Your task to perform on an android device: create a new album in the google photos Image 0: 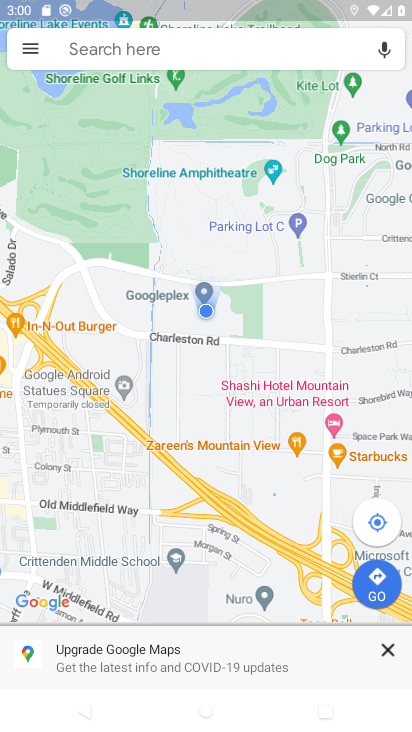
Step 0: press home button
Your task to perform on an android device: create a new album in the google photos Image 1: 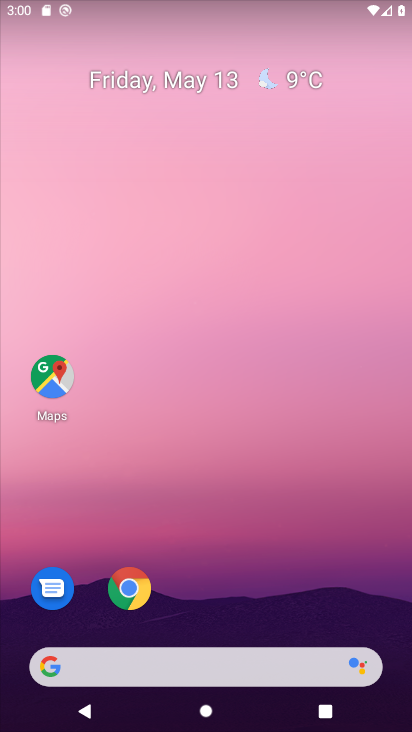
Step 1: drag from (261, 564) to (211, 78)
Your task to perform on an android device: create a new album in the google photos Image 2: 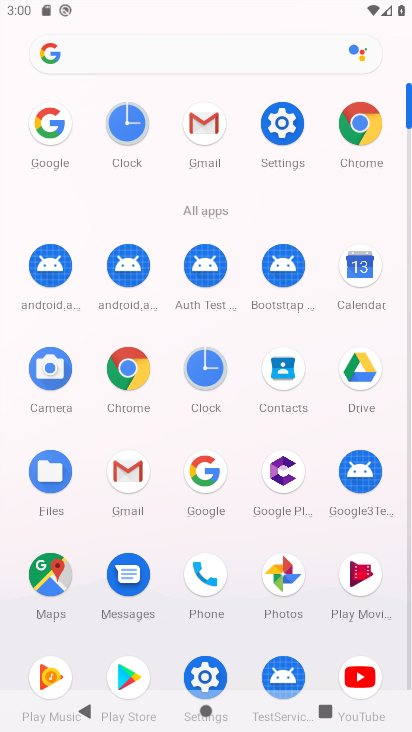
Step 2: click (286, 579)
Your task to perform on an android device: create a new album in the google photos Image 3: 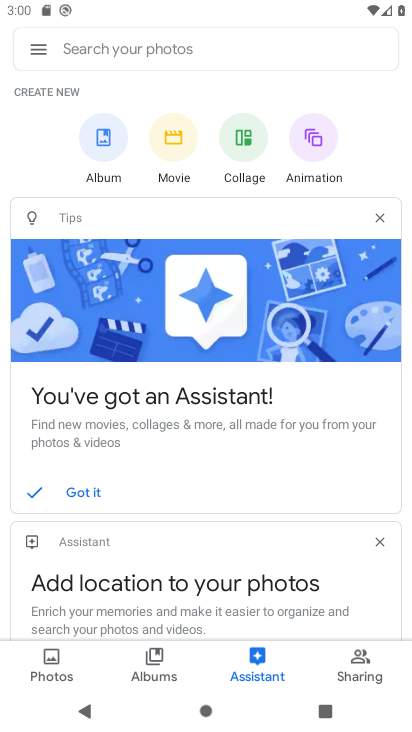
Step 3: click (54, 676)
Your task to perform on an android device: create a new album in the google photos Image 4: 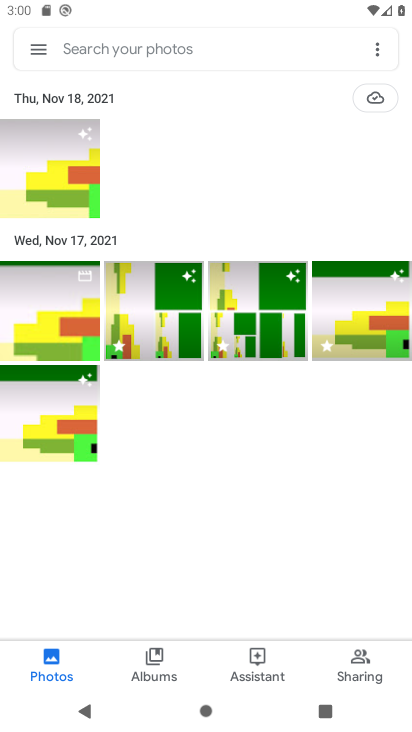
Step 4: click (76, 344)
Your task to perform on an android device: create a new album in the google photos Image 5: 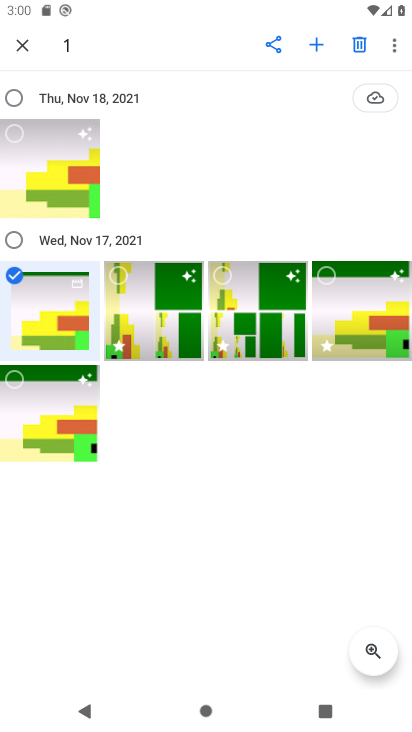
Step 5: click (37, 193)
Your task to perform on an android device: create a new album in the google photos Image 6: 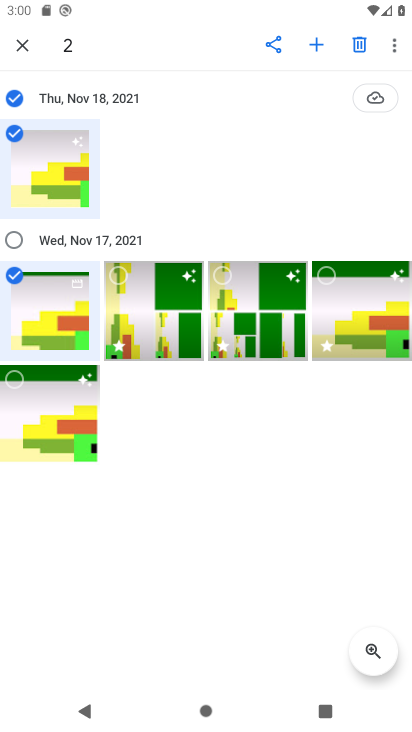
Step 6: click (150, 291)
Your task to perform on an android device: create a new album in the google photos Image 7: 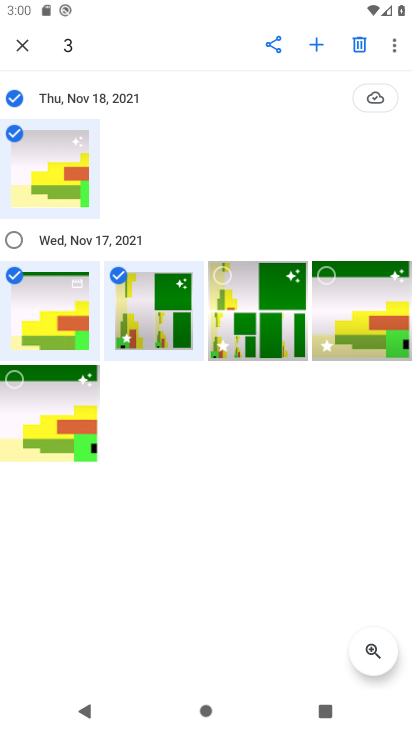
Step 7: click (313, 51)
Your task to perform on an android device: create a new album in the google photos Image 8: 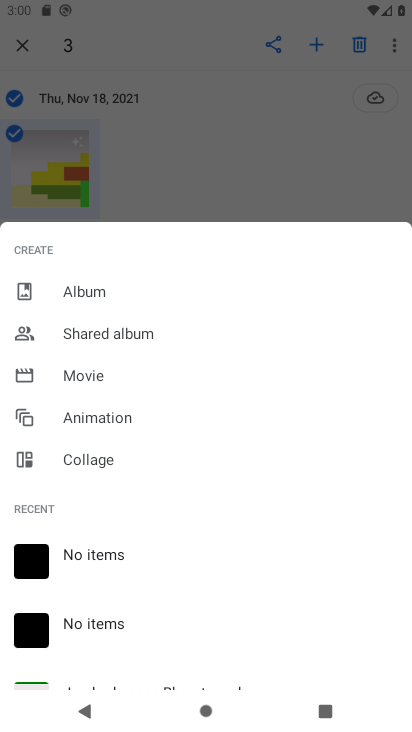
Step 8: click (87, 294)
Your task to perform on an android device: create a new album in the google photos Image 9: 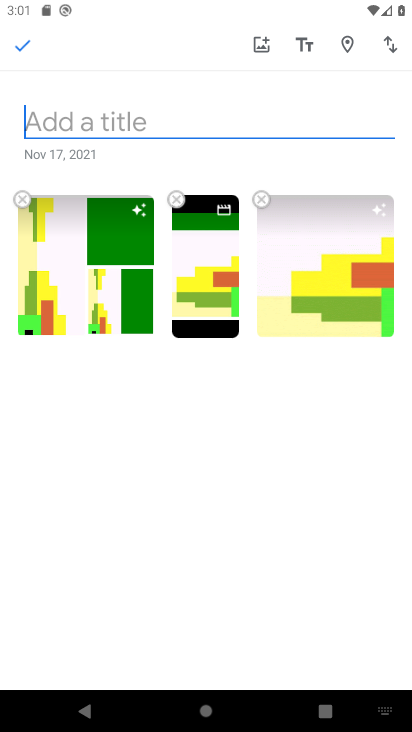
Step 9: type "plopl"
Your task to perform on an android device: create a new album in the google photos Image 10: 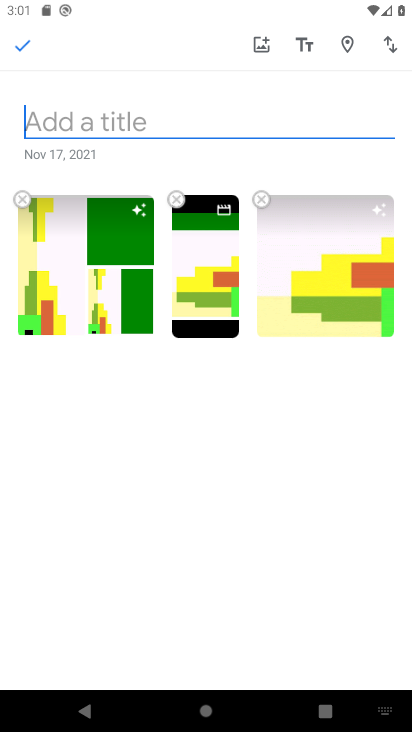
Step 10: click (21, 41)
Your task to perform on an android device: create a new album in the google photos Image 11: 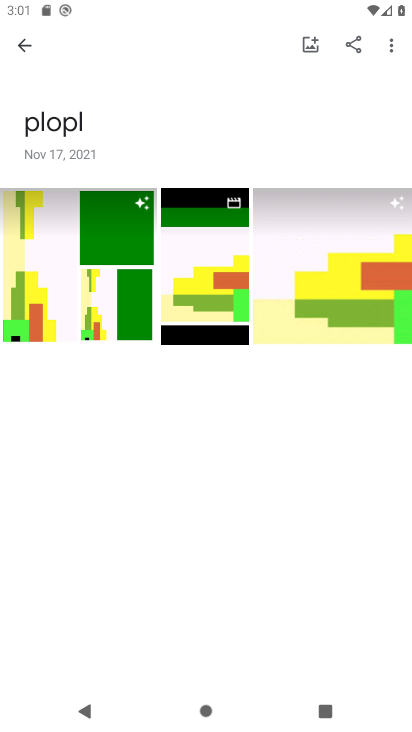
Step 11: task complete